Your task to perform on an android device: open app "Cash App" (install if not already installed) and enter user name: "submodules@gmail.com" and password: "heavenly" Image 0: 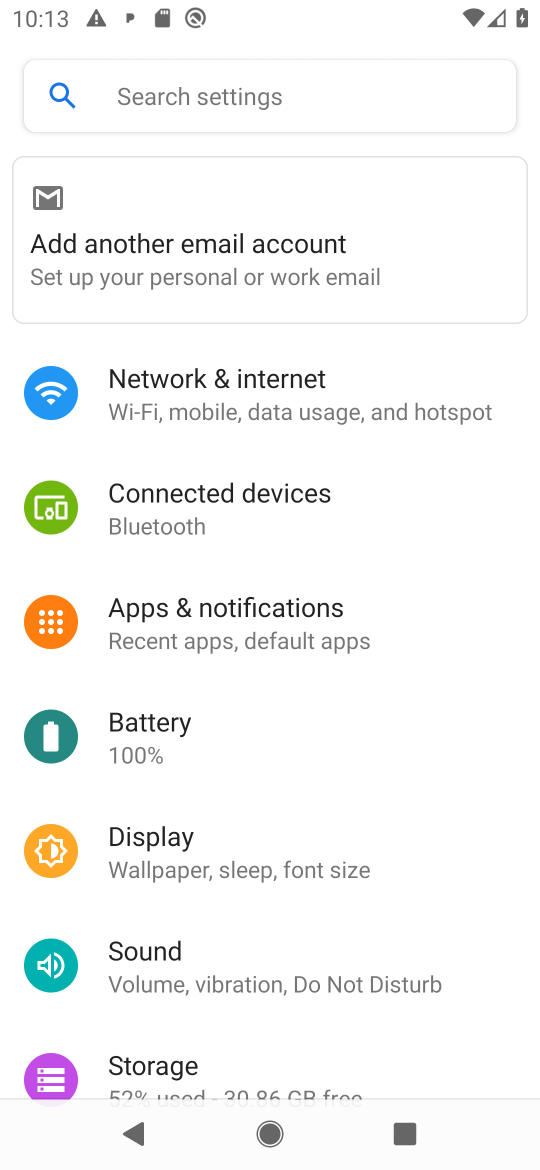
Step 0: press home button
Your task to perform on an android device: open app "Cash App" (install if not already installed) and enter user name: "submodules@gmail.com" and password: "heavenly" Image 1: 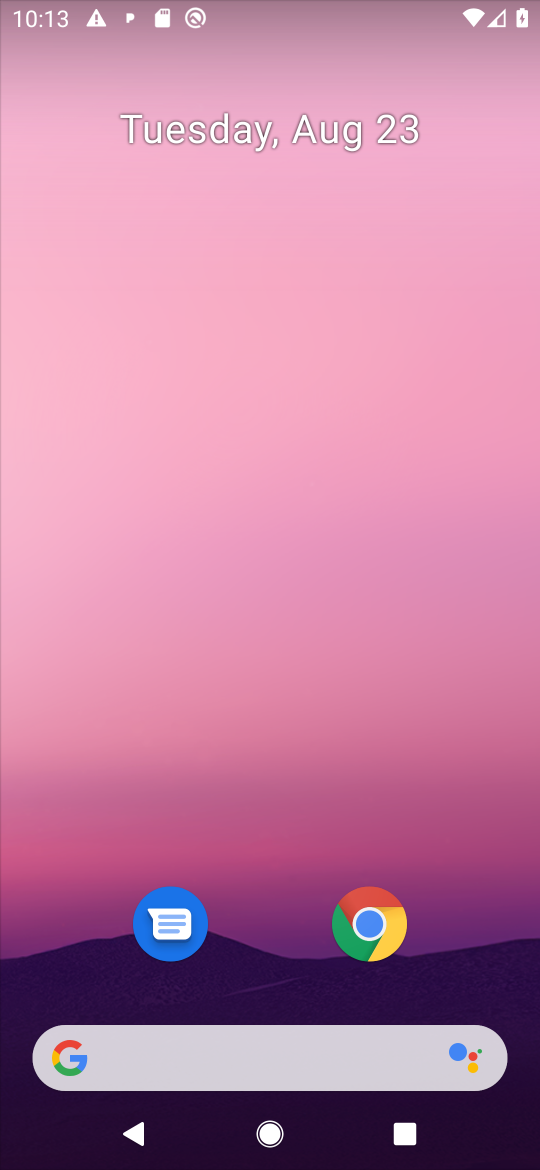
Step 1: drag from (481, 882) to (453, 125)
Your task to perform on an android device: open app "Cash App" (install if not already installed) and enter user name: "submodules@gmail.com" and password: "heavenly" Image 2: 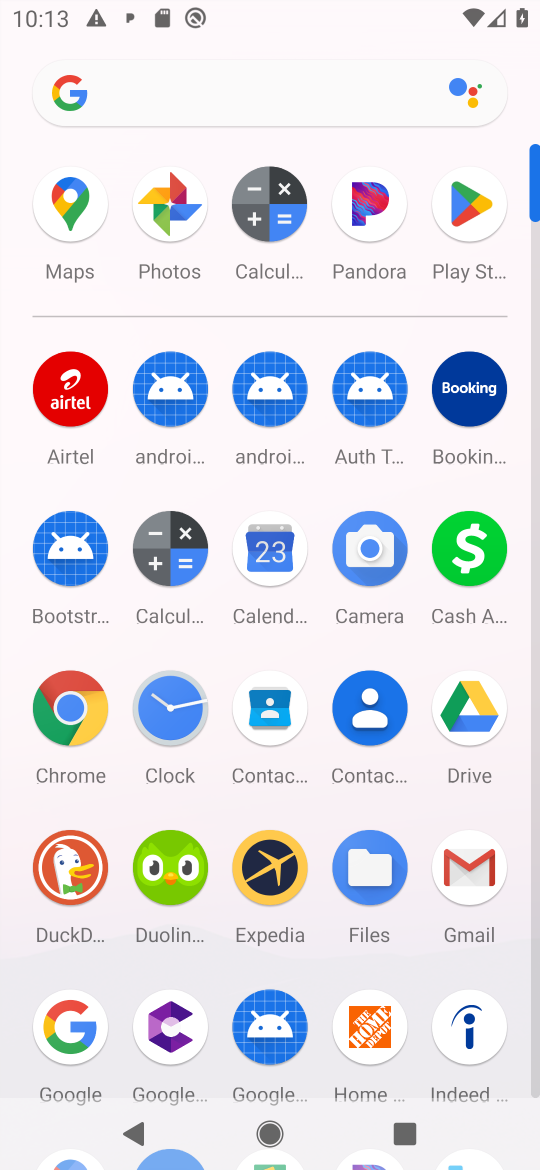
Step 2: click (457, 210)
Your task to perform on an android device: open app "Cash App" (install if not already installed) and enter user name: "submodules@gmail.com" and password: "heavenly" Image 3: 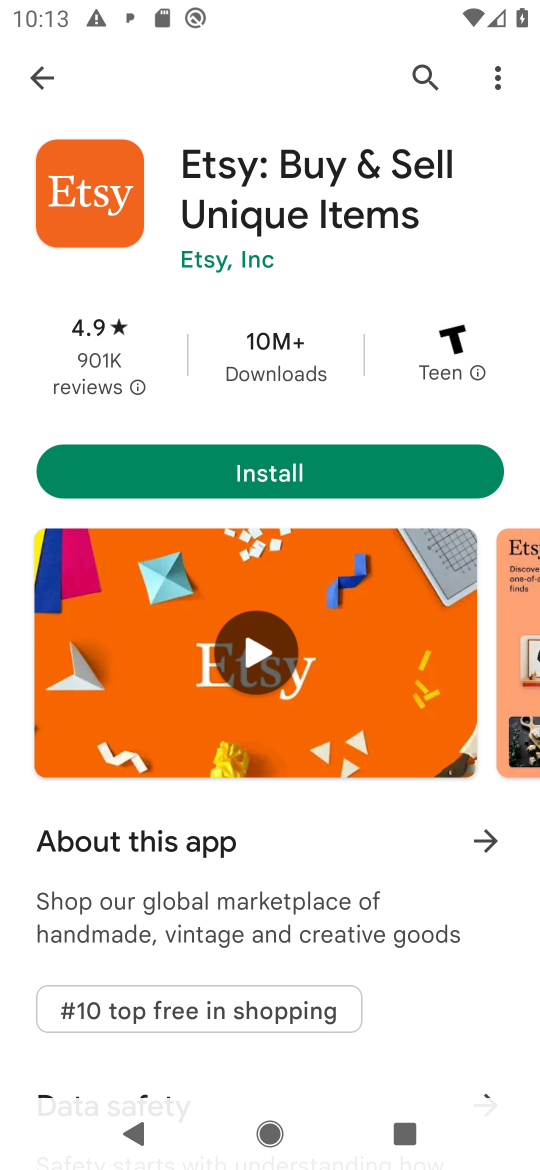
Step 3: press back button
Your task to perform on an android device: open app "Cash App" (install if not already installed) and enter user name: "submodules@gmail.com" and password: "heavenly" Image 4: 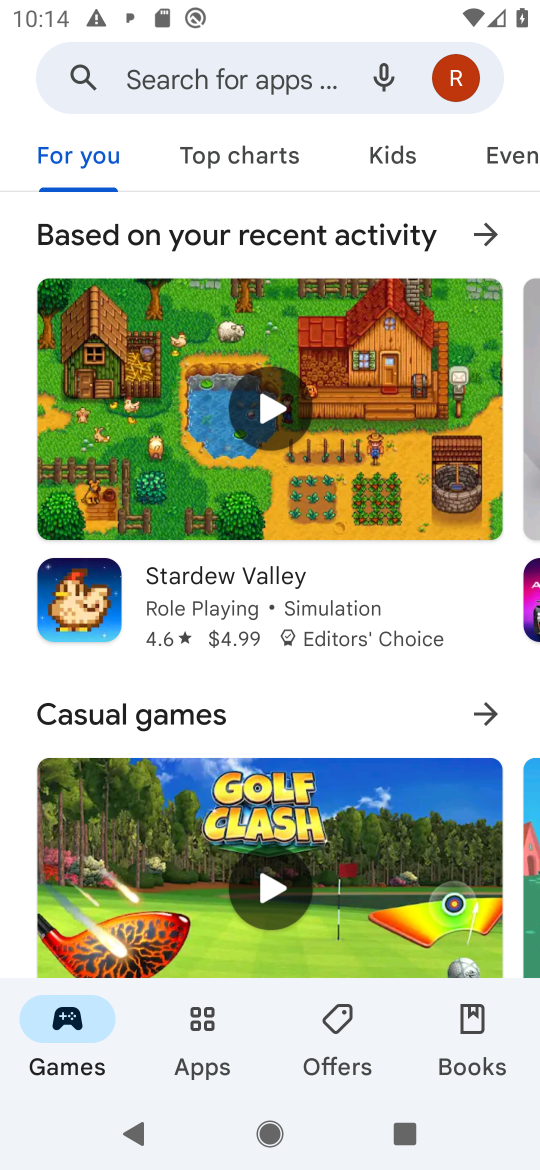
Step 4: click (264, 78)
Your task to perform on an android device: open app "Cash App" (install if not already installed) and enter user name: "submodules@gmail.com" and password: "heavenly" Image 5: 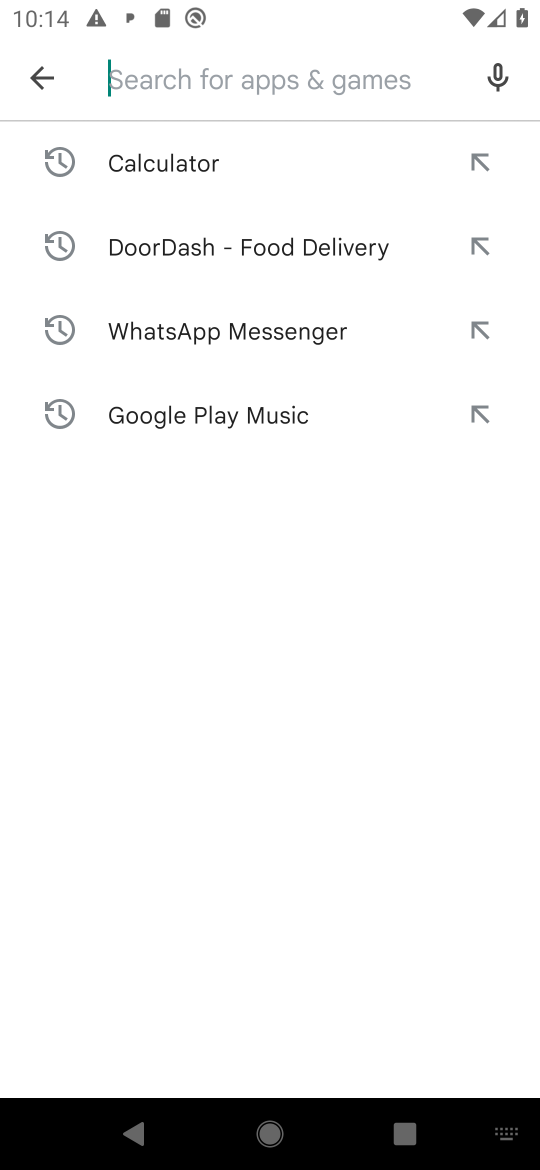
Step 5: type "Cash App"
Your task to perform on an android device: open app "Cash App" (install if not already installed) and enter user name: "submodules@gmail.com" and password: "heavenly" Image 6: 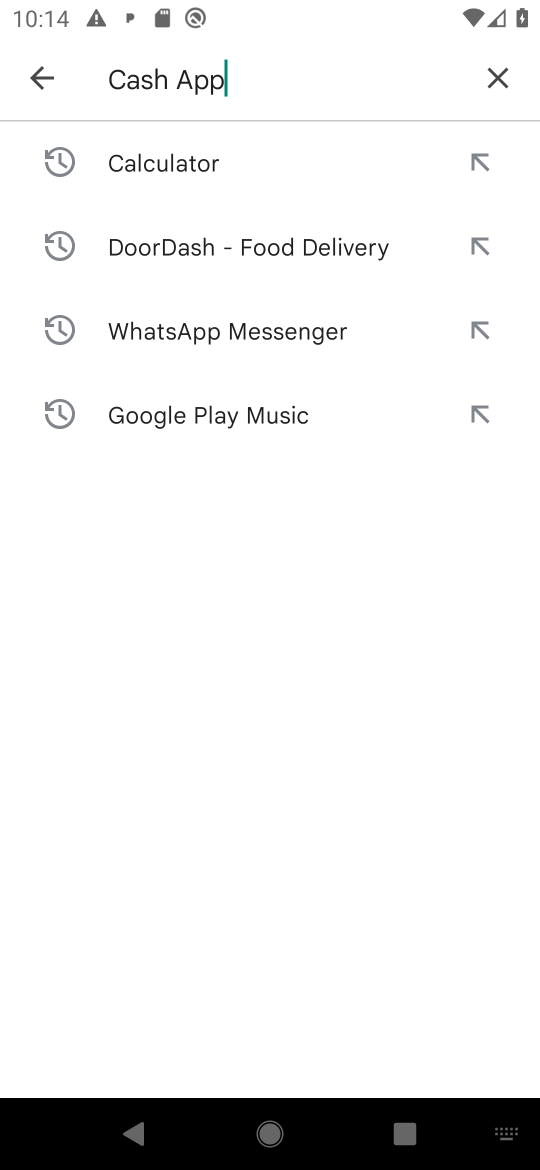
Step 6: press enter
Your task to perform on an android device: open app "Cash App" (install if not already installed) and enter user name: "submodules@gmail.com" and password: "heavenly" Image 7: 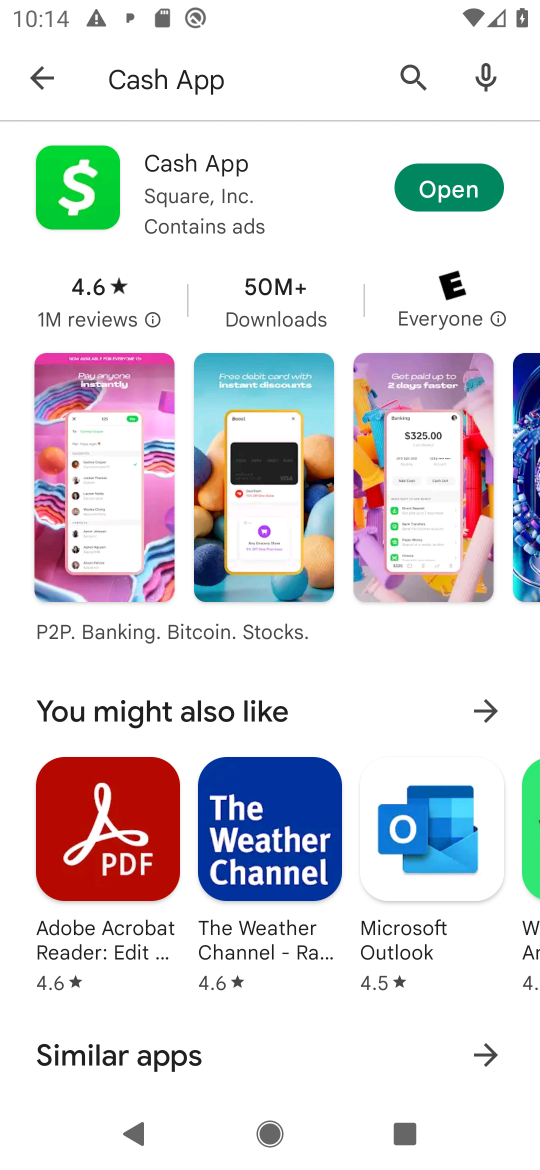
Step 7: click (461, 191)
Your task to perform on an android device: open app "Cash App" (install if not already installed) and enter user name: "submodules@gmail.com" and password: "heavenly" Image 8: 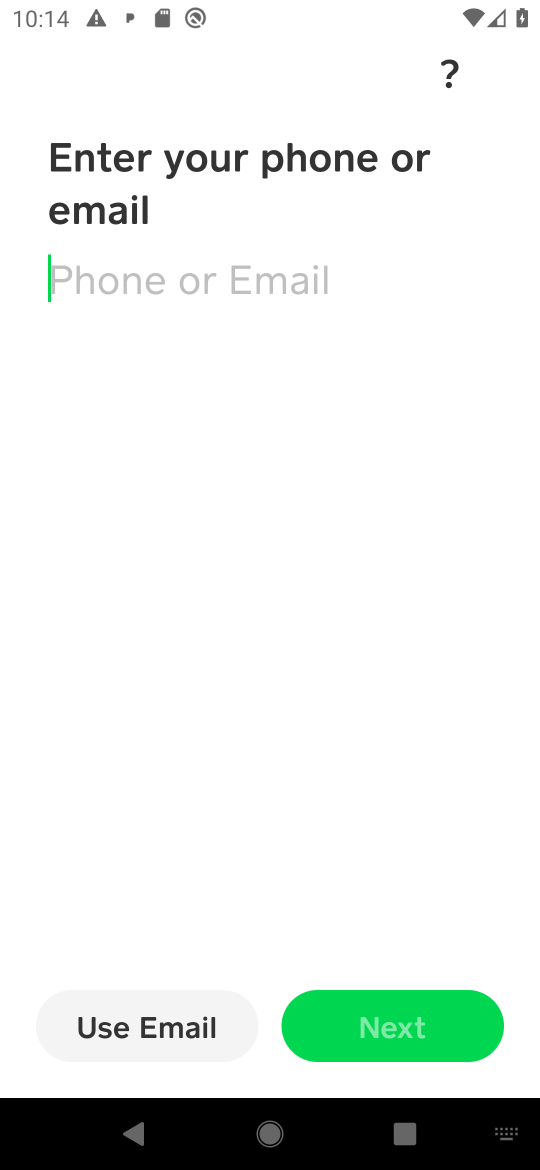
Step 8: click (136, 1028)
Your task to perform on an android device: open app "Cash App" (install if not already installed) and enter user name: "submodules@gmail.com" and password: "heavenly" Image 9: 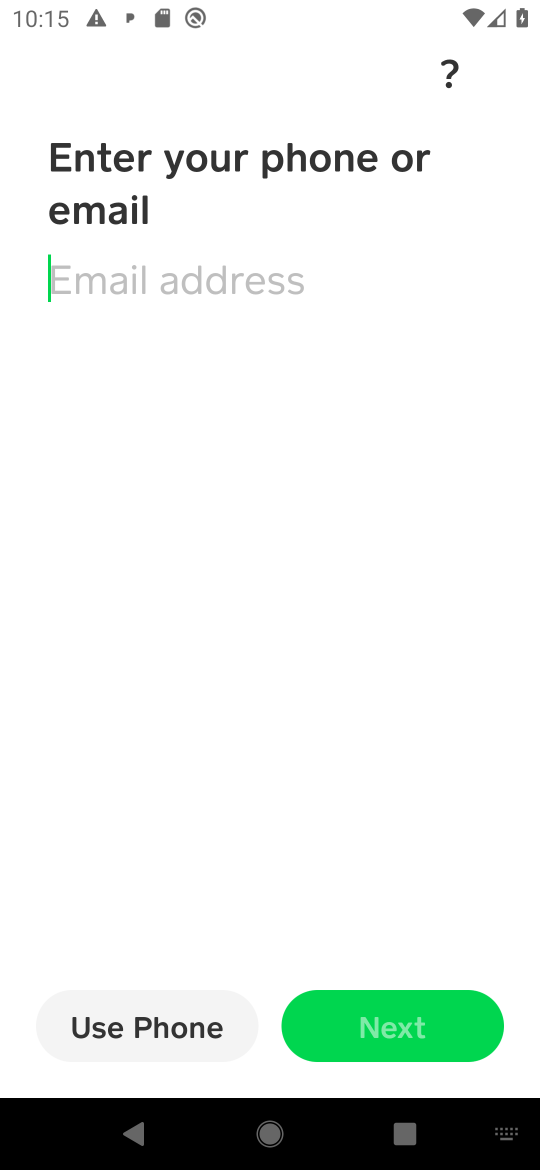
Step 9: type "submodules@gmail.com"
Your task to perform on an android device: open app "Cash App" (install if not already installed) and enter user name: "submodules@gmail.com" and password: "heavenly" Image 10: 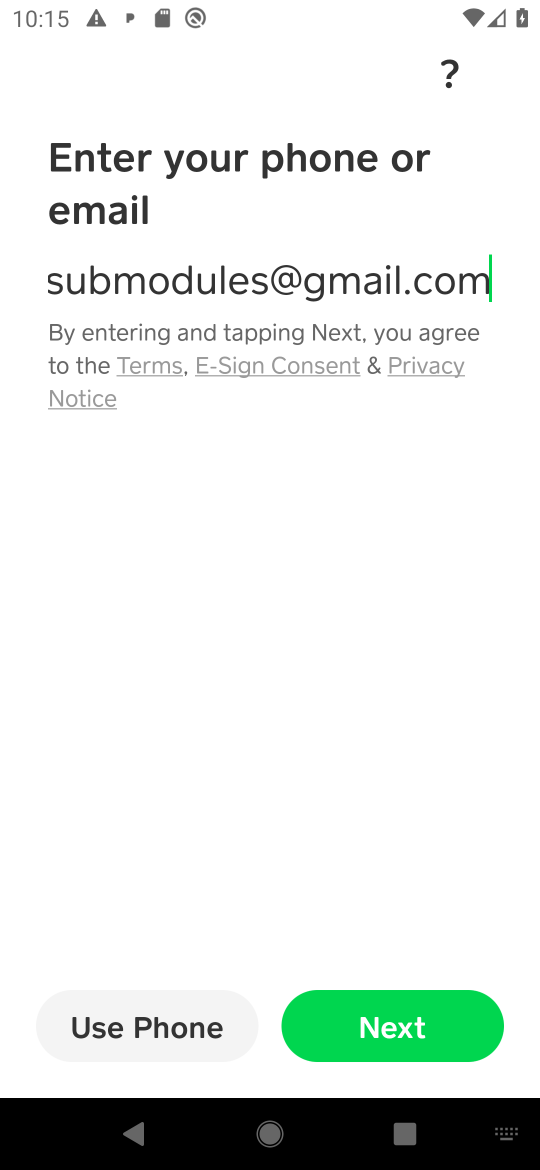
Step 10: click (428, 1033)
Your task to perform on an android device: open app "Cash App" (install if not already installed) and enter user name: "submodules@gmail.com" and password: "heavenly" Image 11: 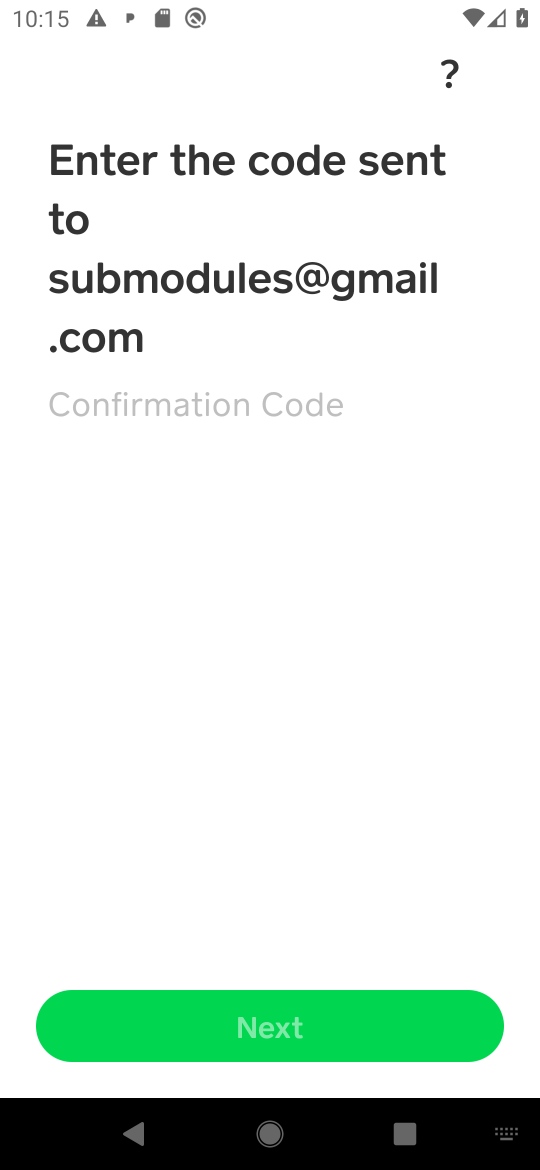
Step 11: task complete